Your task to perform on an android device: turn pop-ups on in chrome Image 0: 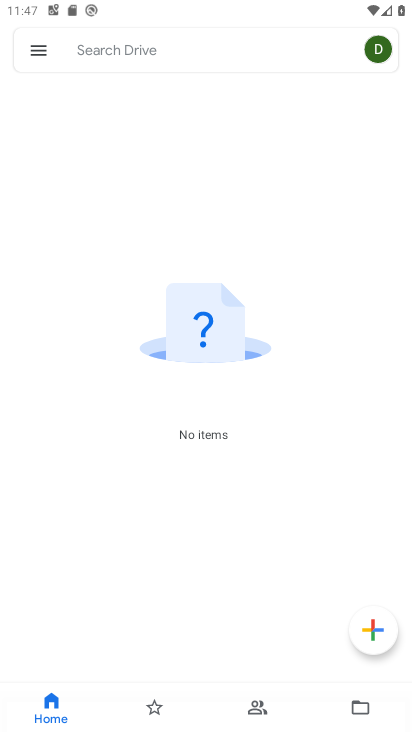
Step 0: press home button
Your task to perform on an android device: turn pop-ups on in chrome Image 1: 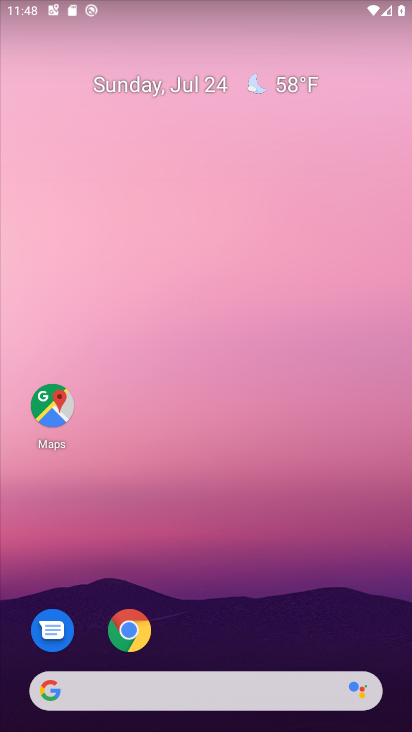
Step 1: click (130, 636)
Your task to perform on an android device: turn pop-ups on in chrome Image 2: 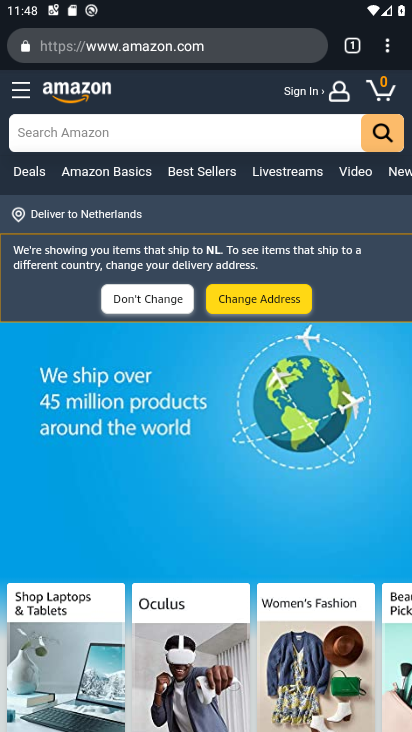
Step 2: click (390, 45)
Your task to perform on an android device: turn pop-ups on in chrome Image 3: 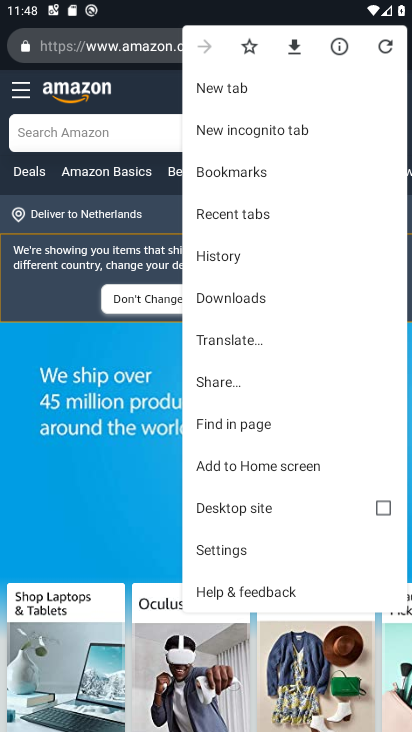
Step 3: click (228, 556)
Your task to perform on an android device: turn pop-ups on in chrome Image 4: 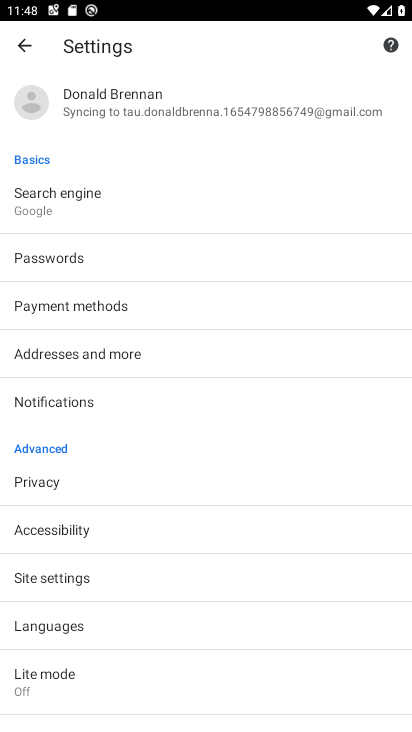
Step 4: click (49, 585)
Your task to perform on an android device: turn pop-ups on in chrome Image 5: 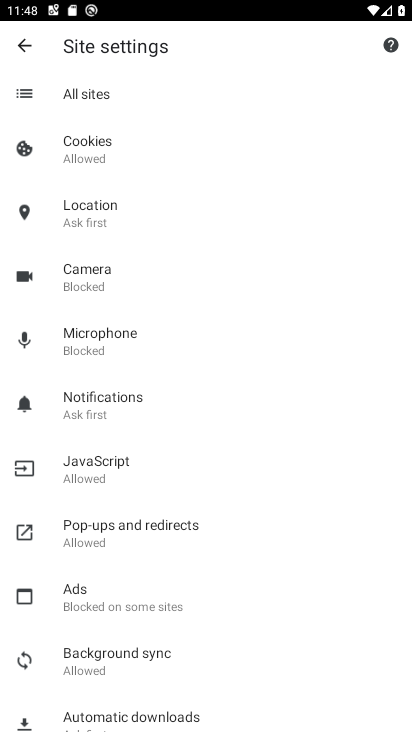
Step 5: click (107, 540)
Your task to perform on an android device: turn pop-ups on in chrome Image 6: 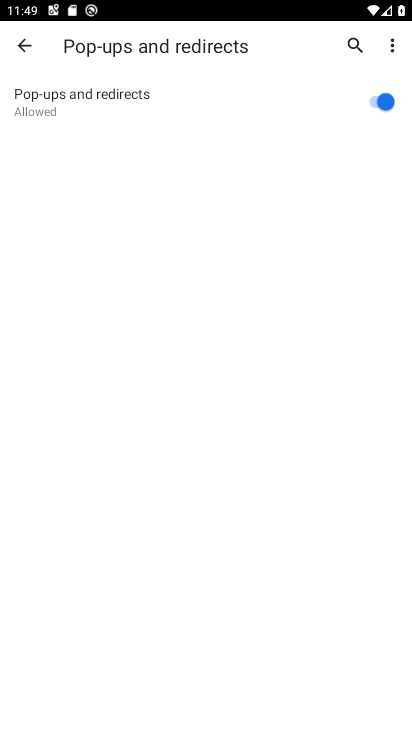
Step 6: task complete